Your task to perform on an android device: Search for seafood restaurants on Google Maps Image 0: 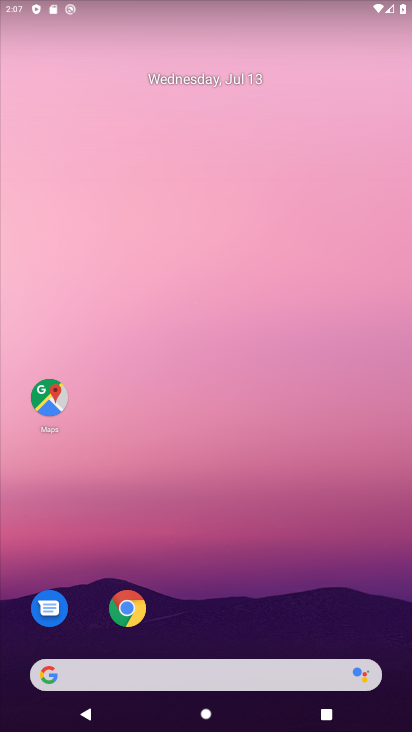
Step 0: drag from (195, 603) to (195, 207)
Your task to perform on an android device: Search for seafood restaurants on Google Maps Image 1: 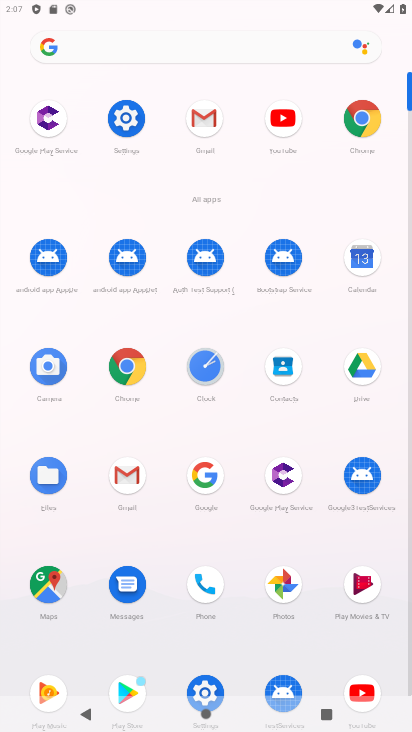
Step 1: click (43, 590)
Your task to perform on an android device: Search for seafood restaurants on Google Maps Image 2: 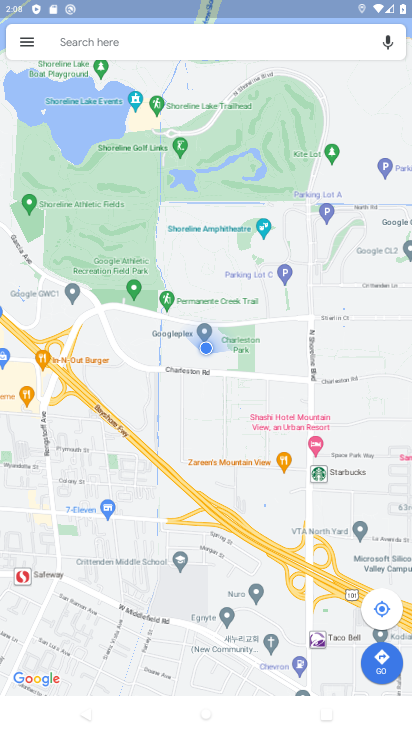
Step 2: click (108, 37)
Your task to perform on an android device: Search for seafood restaurants on Google Maps Image 3: 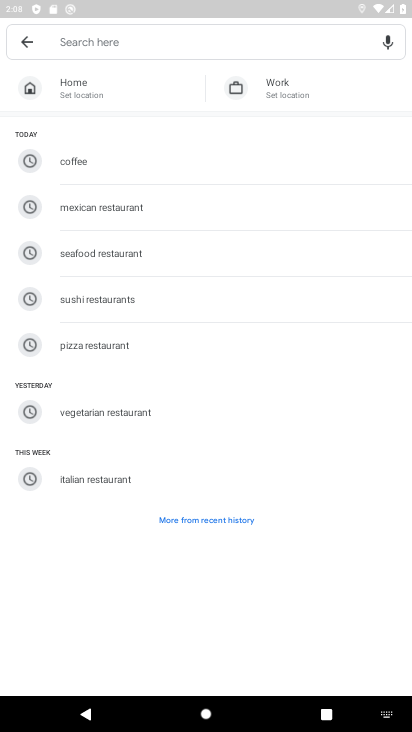
Step 3: click (85, 245)
Your task to perform on an android device: Search for seafood restaurants on Google Maps Image 4: 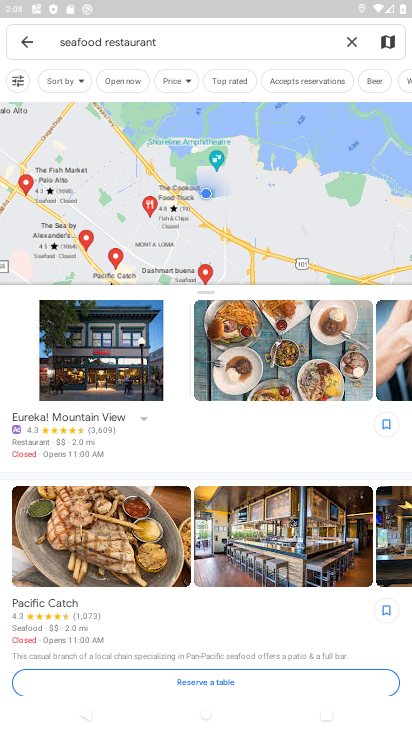
Step 4: task complete